Your task to perform on an android device: check google app version Image 0: 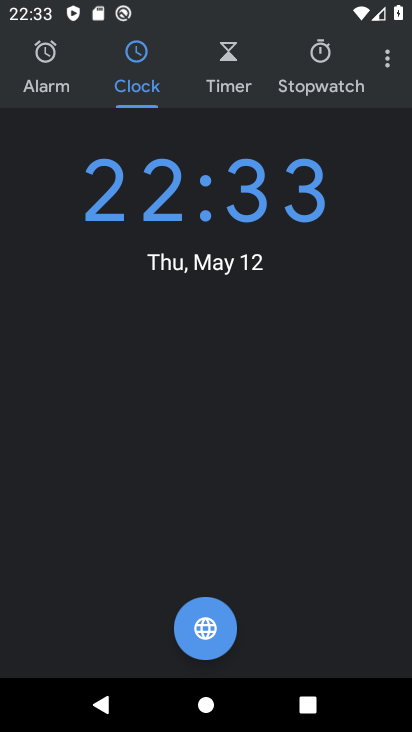
Step 0: press home button
Your task to perform on an android device: check google app version Image 1: 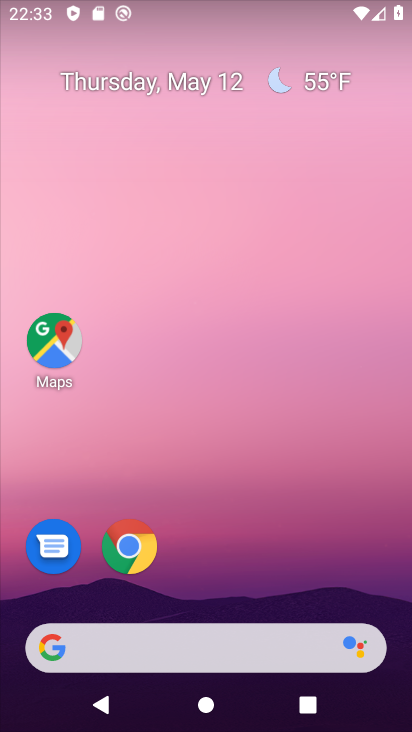
Step 1: drag from (179, 579) to (262, 105)
Your task to perform on an android device: check google app version Image 2: 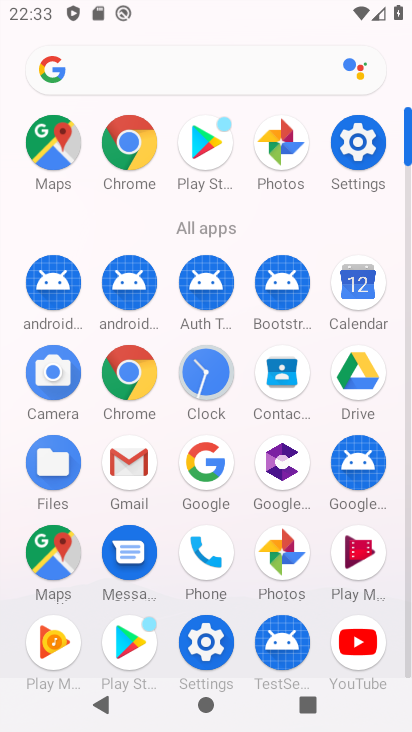
Step 2: click (206, 462)
Your task to perform on an android device: check google app version Image 3: 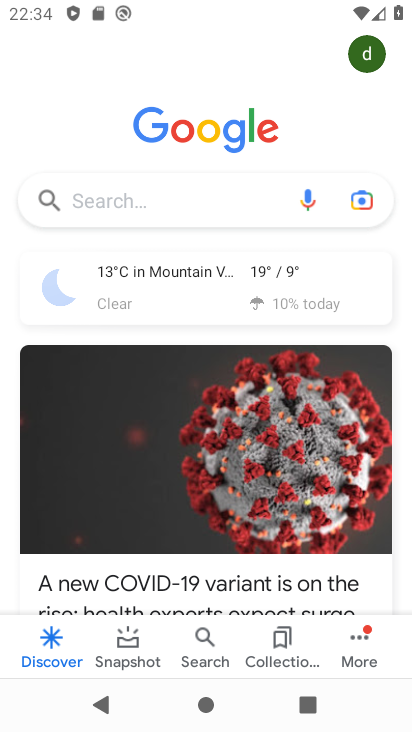
Step 3: click (365, 645)
Your task to perform on an android device: check google app version Image 4: 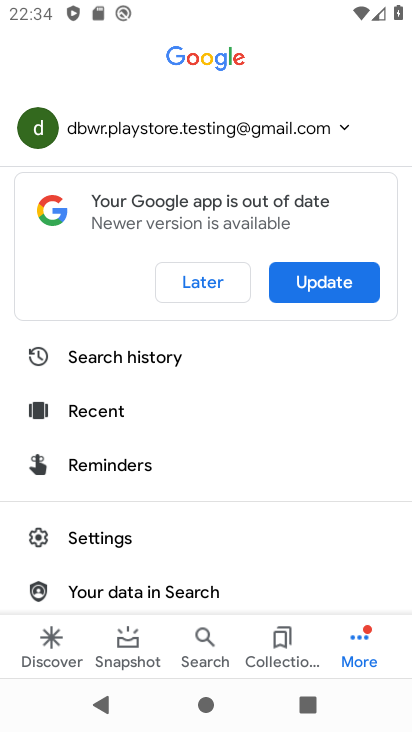
Step 4: click (121, 540)
Your task to perform on an android device: check google app version Image 5: 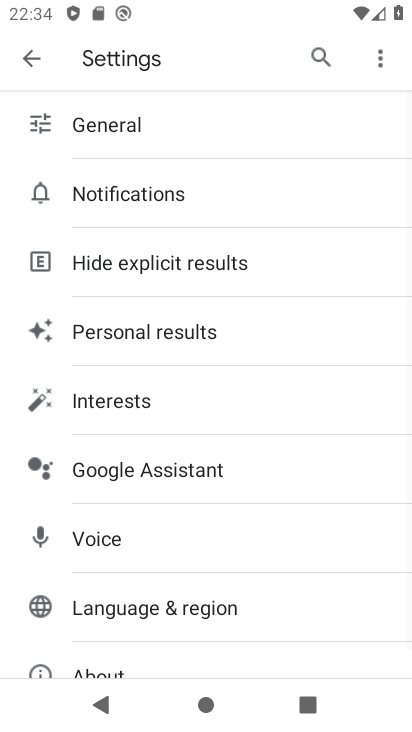
Step 5: drag from (125, 505) to (197, 98)
Your task to perform on an android device: check google app version Image 6: 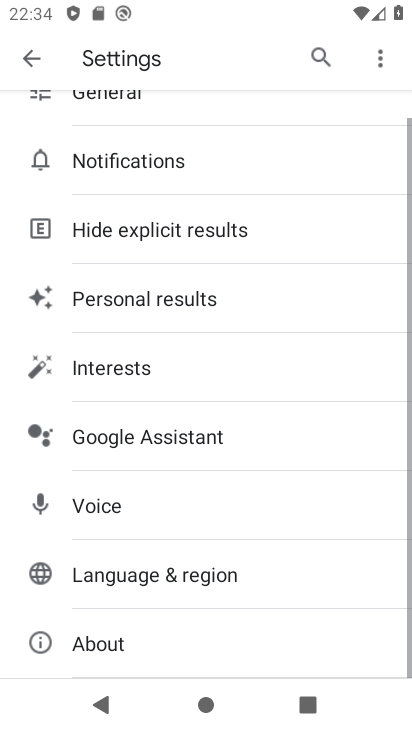
Step 6: click (125, 631)
Your task to perform on an android device: check google app version Image 7: 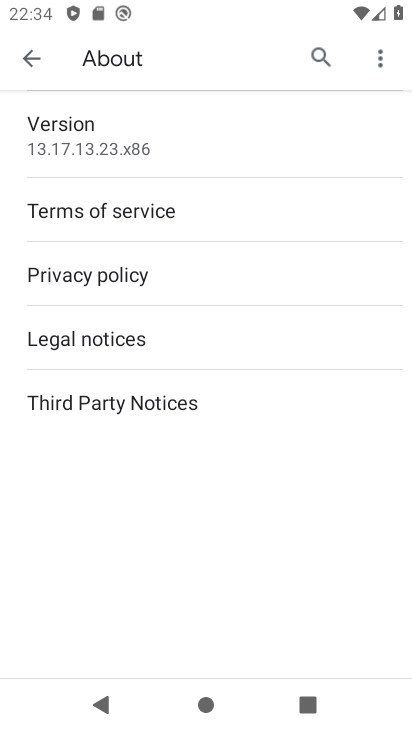
Step 7: click (120, 145)
Your task to perform on an android device: check google app version Image 8: 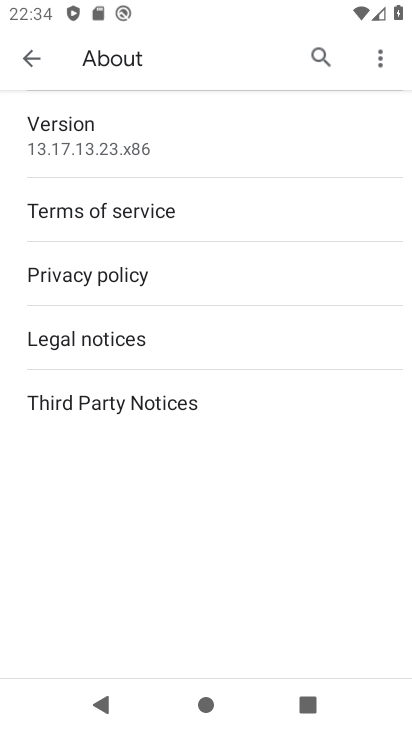
Step 8: task complete